Your task to perform on an android device: Open privacy settings Image 0: 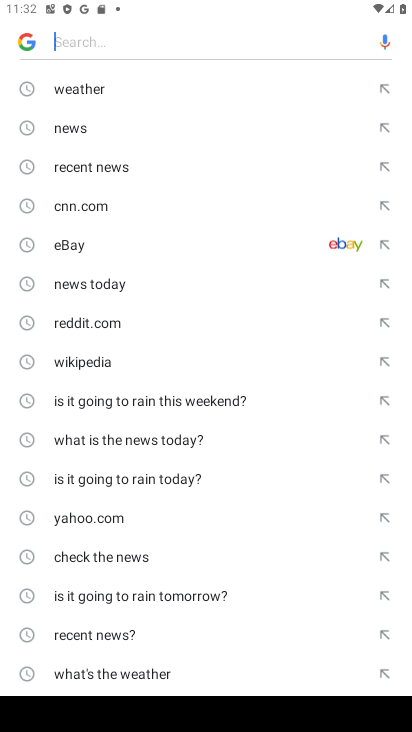
Step 0: press home button
Your task to perform on an android device: Open privacy settings Image 1: 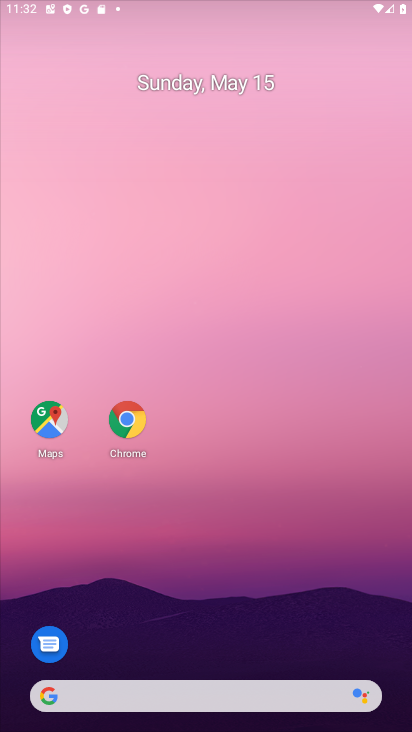
Step 1: drag from (206, 616) to (317, 0)
Your task to perform on an android device: Open privacy settings Image 2: 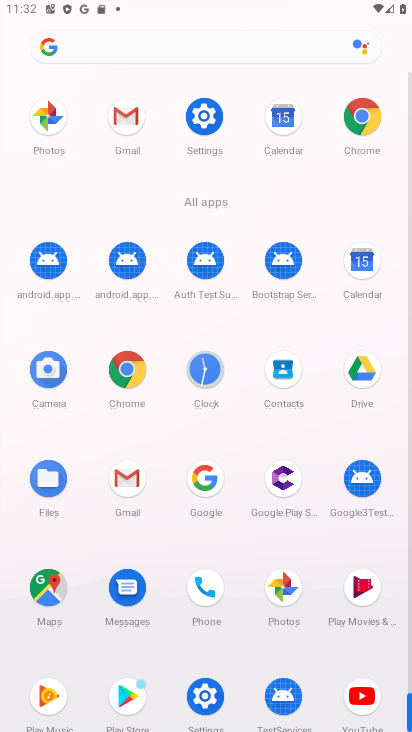
Step 2: click (199, 123)
Your task to perform on an android device: Open privacy settings Image 3: 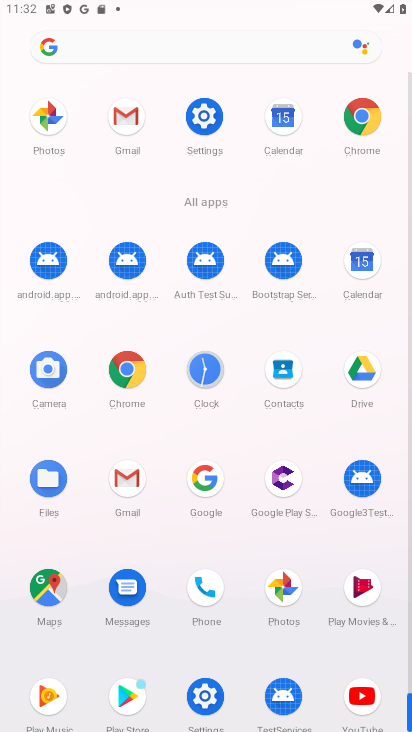
Step 3: click (199, 123)
Your task to perform on an android device: Open privacy settings Image 4: 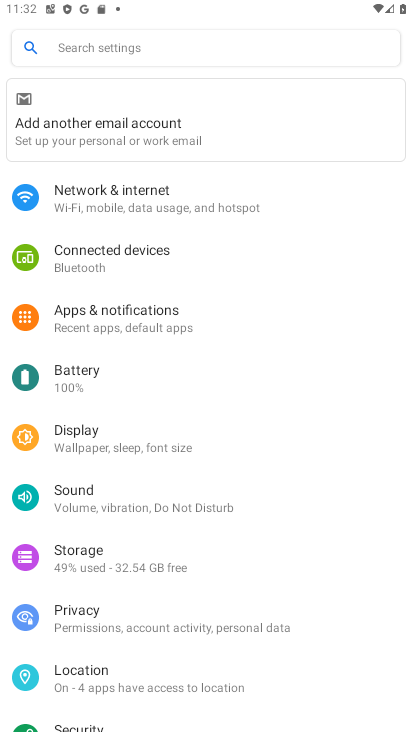
Step 4: click (92, 632)
Your task to perform on an android device: Open privacy settings Image 5: 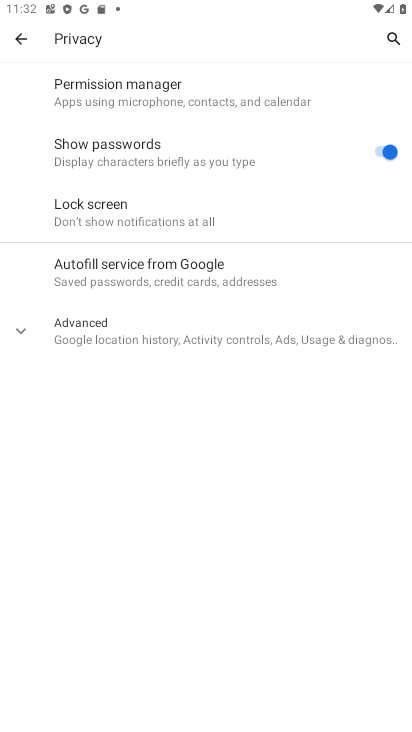
Step 5: task complete